Your task to perform on an android device: When is my next meeting? Image 0: 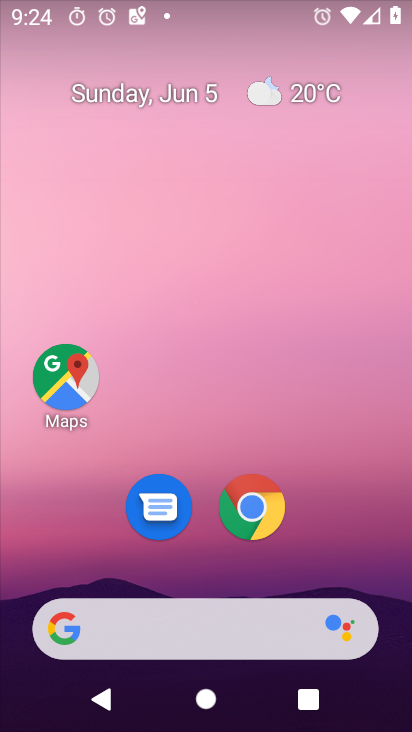
Step 0: drag from (339, 546) to (242, 46)
Your task to perform on an android device: When is my next meeting? Image 1: 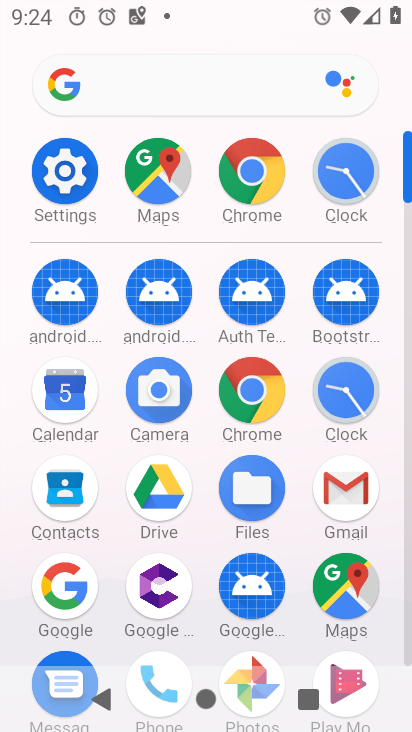
Step 1: drag from (8, 562) to (0, 247)
Your task to perform on an android device: When is my next meeting? Image 2: 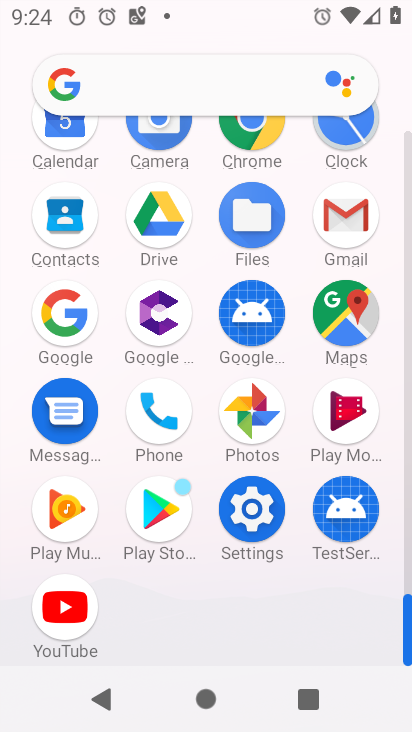
Step 2: drag from (15, 202) to (12, 398)
Your task to perform on an android device: When is my next meeting? Image 3: 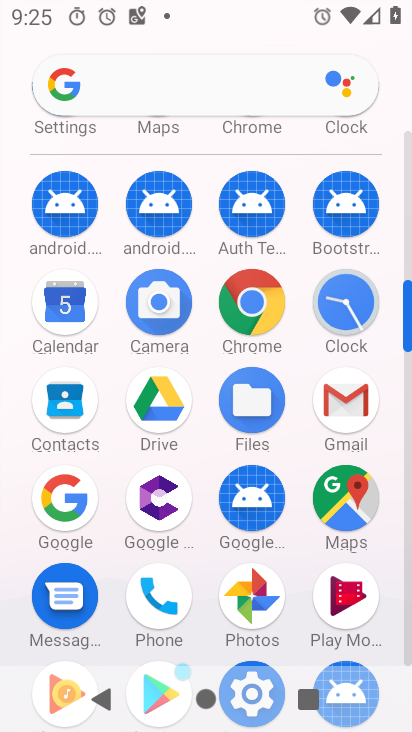
Step 3: click (62, 297)
Your task to perform on an android device: When is my next meeting? Image 4: 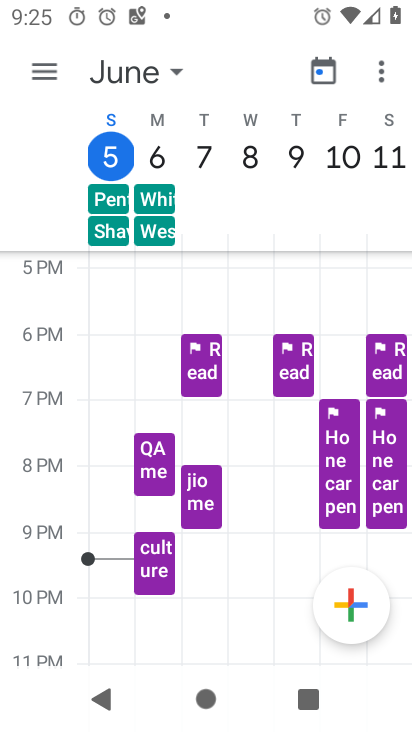
Step 4: click (52, 67)
Your task to perform on an android device: When is my next meeting? Image 5: 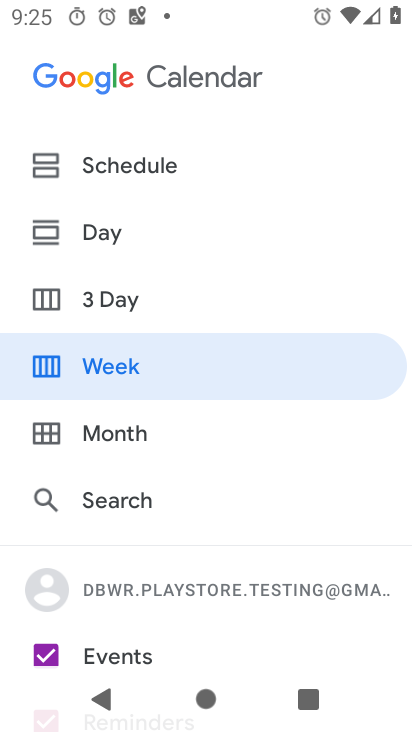
Step 5: click (135, 162)
Your task to perform on an android device: When is my next meeting? Image 6: 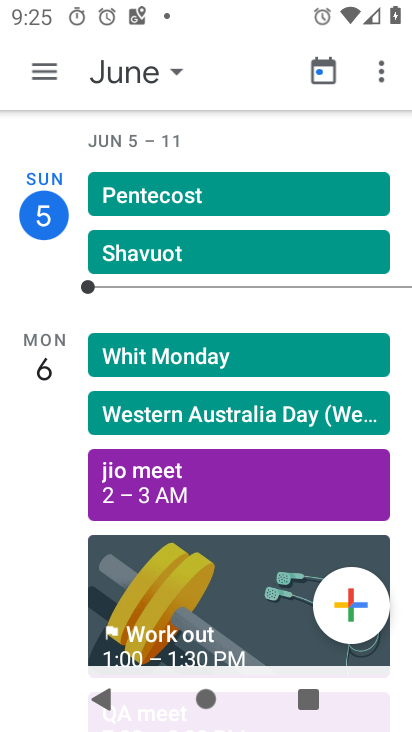
Step 6: task complete